Your task to perform on an android device: open a new tab in the chrome app Image 0: 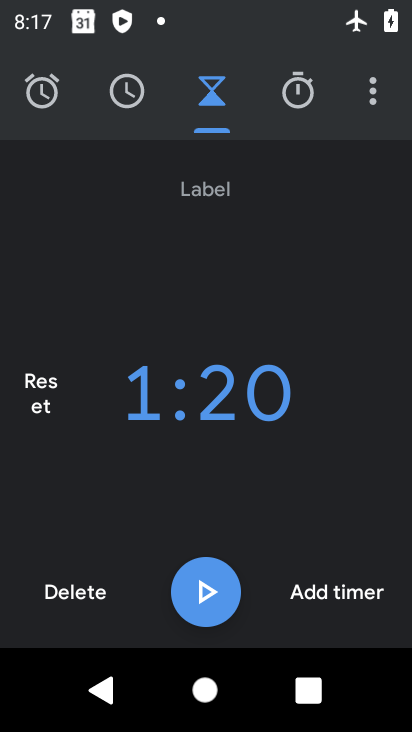
Step 0: press home button
Your task to perform on an android device: open a new tab in the chrome app Image 1: 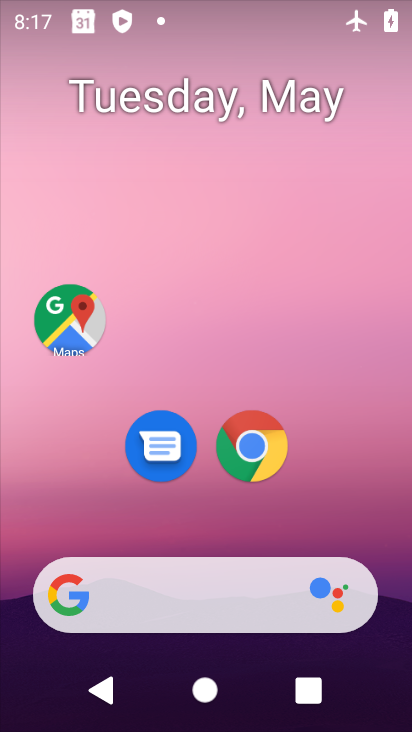
Step 1: click (246, 448)
Your task to perform on an android device: open a new tab in the chrome app Image 2: 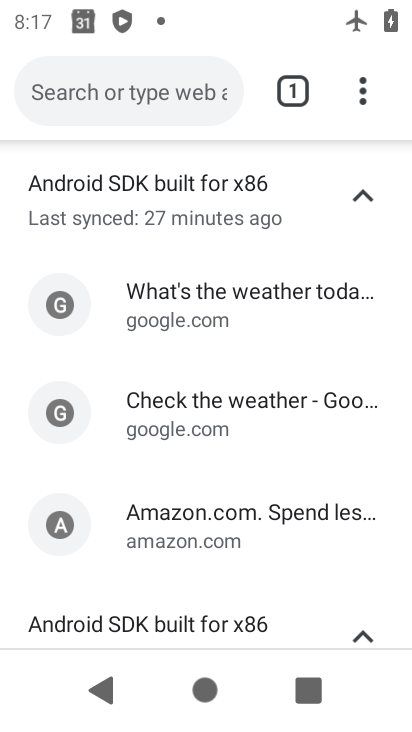
Step 2: click (366, 94)
Your task to perform on an android device: open a new tab in the chrome app Image 3: 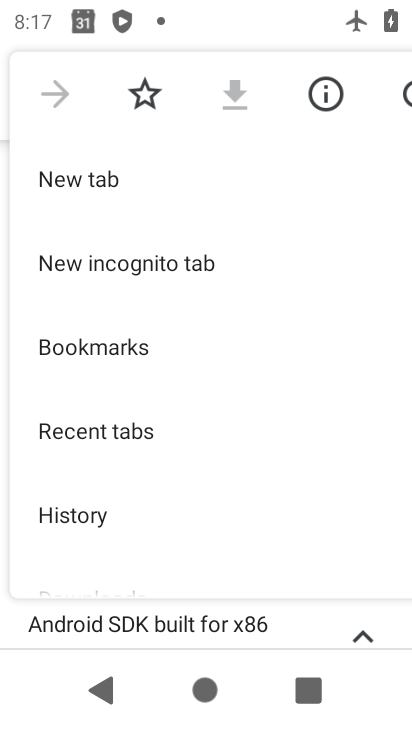
Step 3: click (104, 184)
Your task to perform on an android device: open a new tab in the chrome app Image 4: 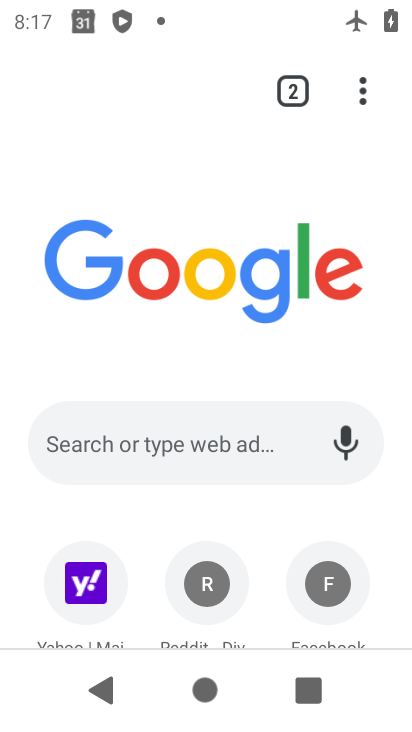
Step 4: task complete